Your task to perform on an android device: snooze an email in the gmail app Image 0: 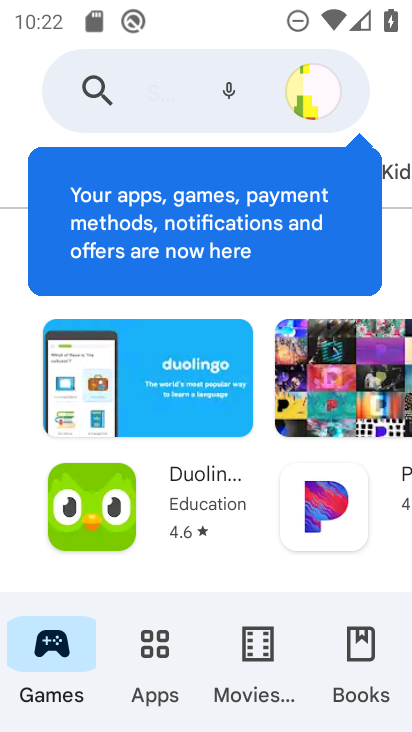
Step 0: press home button
Your task to perform on an android device: snooze an email in the gmail app Image 1: 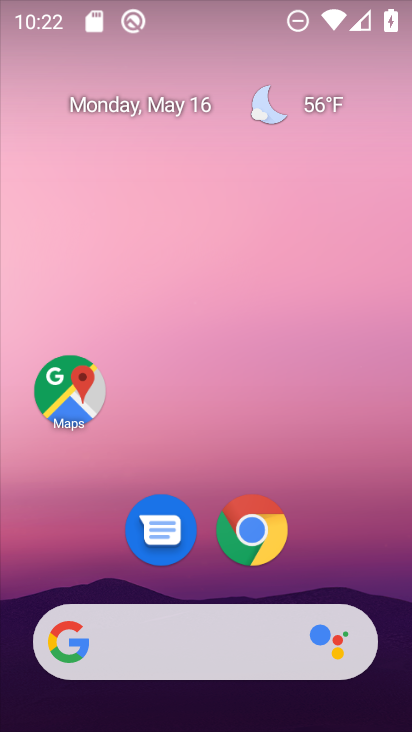
Step 1: drag from (366, 562) to (379, 219)
Your task to perform on an android device: snooze an email in the gmail app Image 2: 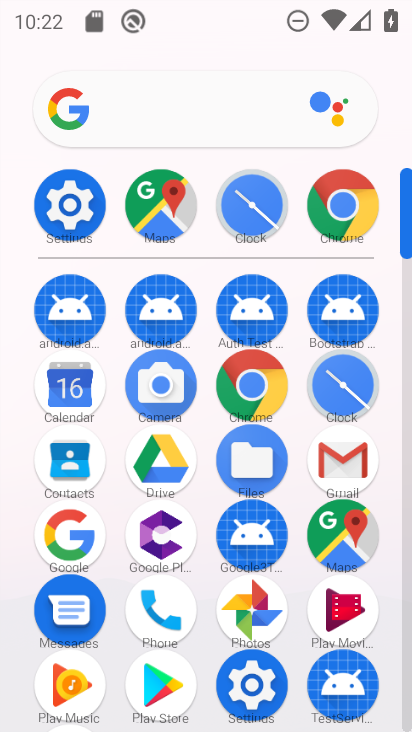
Step 2: click (340, 456)
Your task to perform on an android device: snooze an email in the gmail app Image 3: 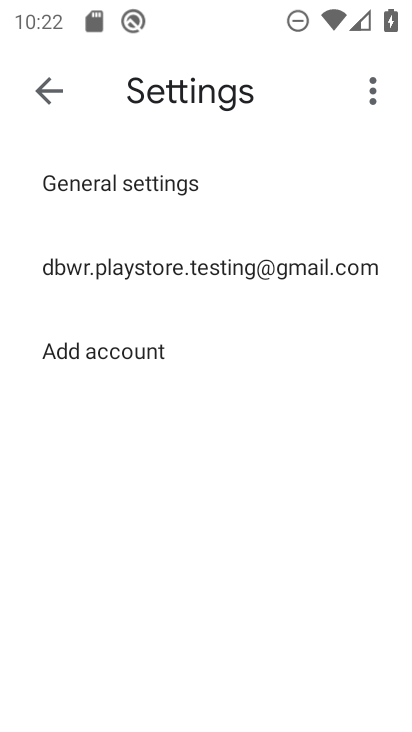
Step 3: click (46, 87)
Your task to perform on an android device: snooze an email in the gmail app Image 4: 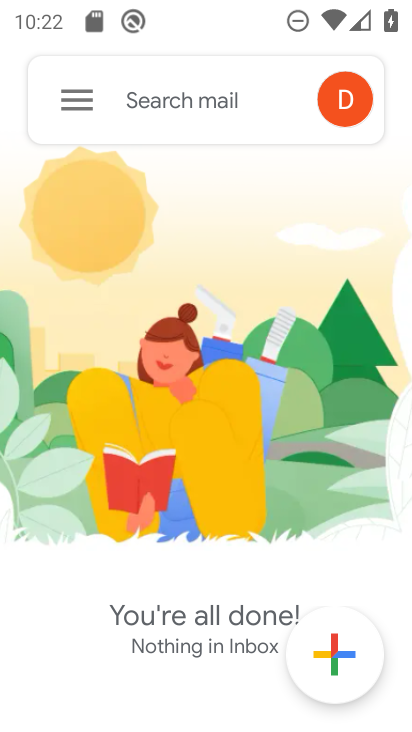
Step 4: click (87, 89)
Your task to perform on an android device: snooze an email in the gmail app Image 5: 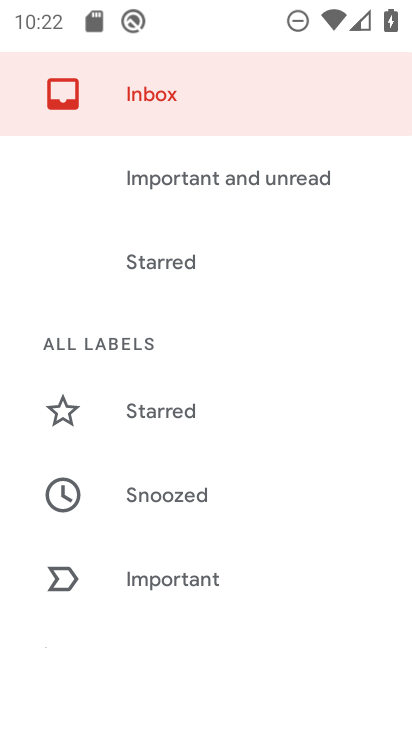
Step 5: drag from (293, 568) to (321, 402)
Your task to perform on an android device: snooze an email in the gmail app Image 6: 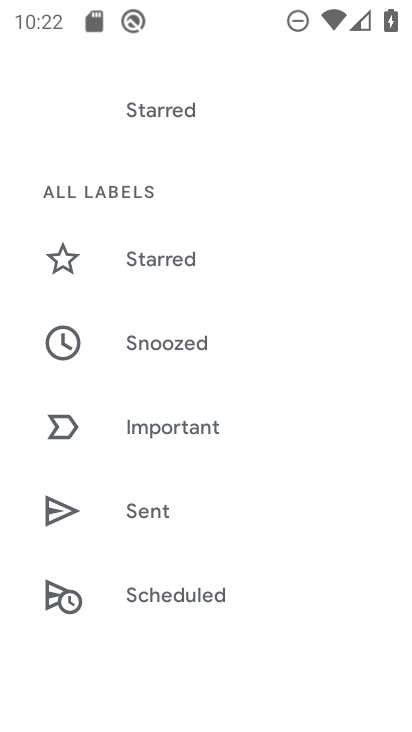
Step 6: drag from (320, 587) to (316, 431)
Your task to perform on an android device: snooze an email in the gmail app Image 7: 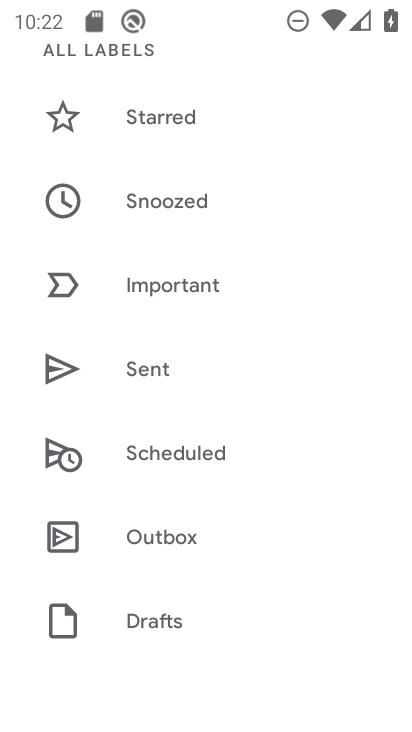
Step 7: click (308, 477)
Your task to perform on an android device: snooze an email in the gmail app Image 8: 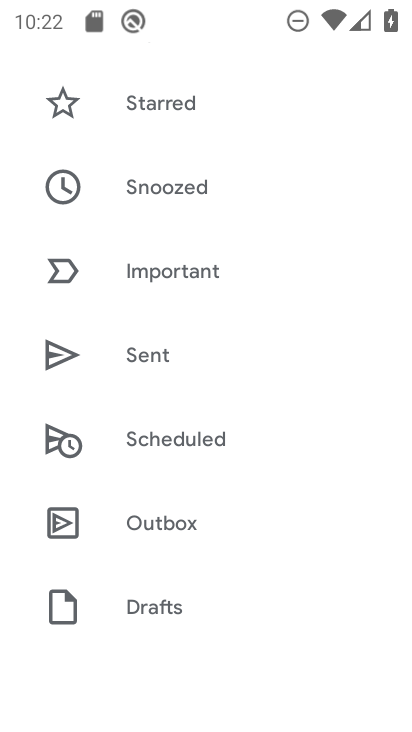
Step 8: drag from (324, 558) to (307, 390)
Your task to perform on an android device: snooze an email in the gmail app Image 9: 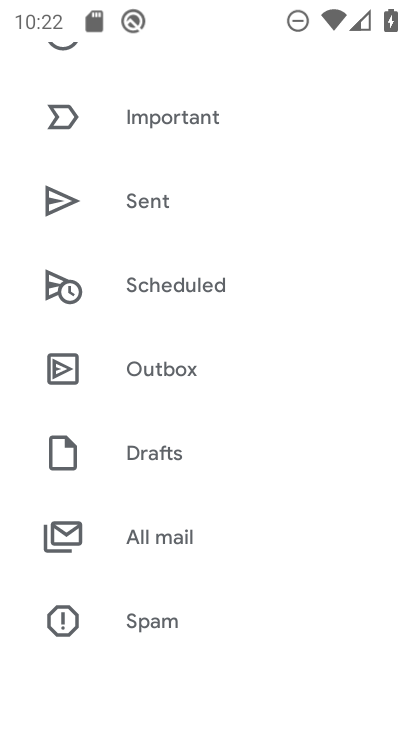
Step 9: drag from (320, 589) to (322, 434)
Your task to perform on an android device: snooze an email in the gmail app Image 10: 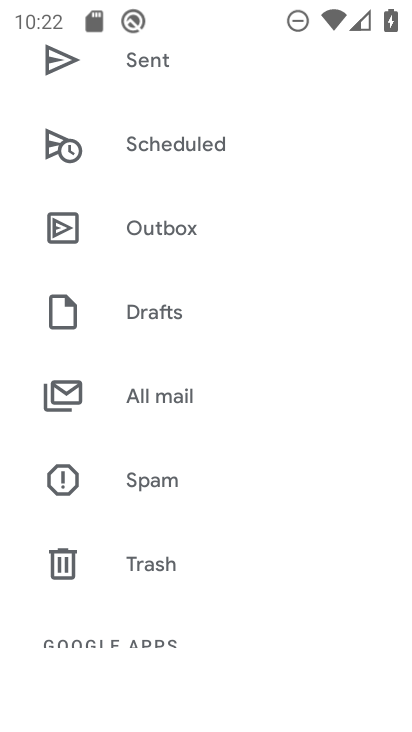
Step 10: drag from (322, 598) to (313, 436)
Your task to perform on an android device: snooze an email in the gmail app Image 11: 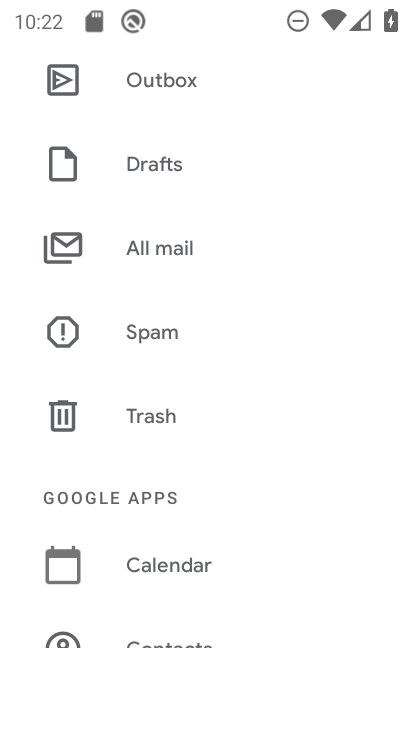
Step 11: drag from (315, 610) to (303, 437)
Your task to perform on an android device: snooze an email in the gmail app Image 12: 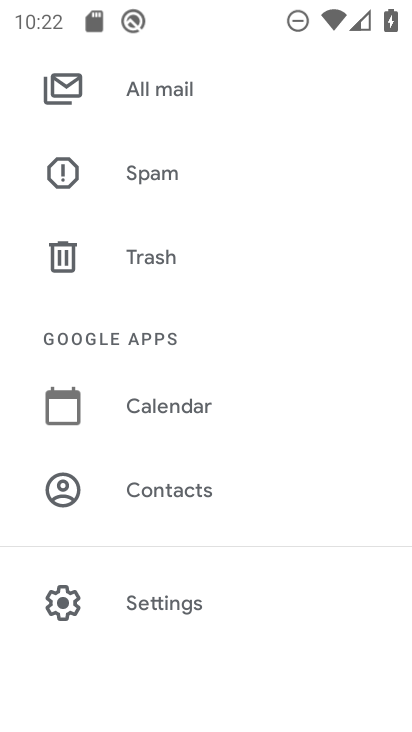
Step 12: drag from (319, 561) to (309, 448)
Your task to perform on an android device: snooze an email in the gmail app Image 13: 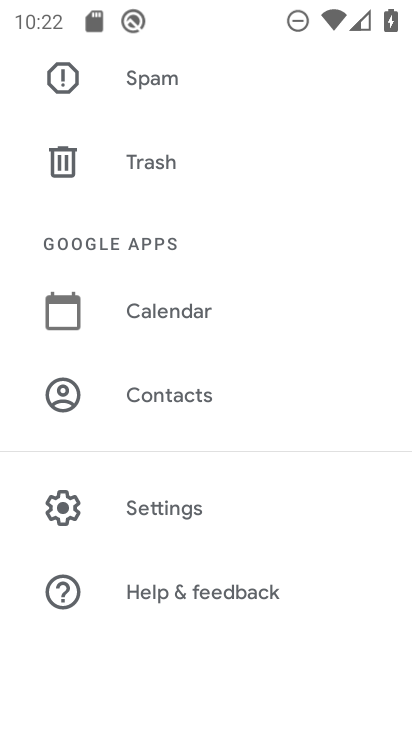
Step 13: drag from (300, 295) to (305, 550)
Your task to perform on an android device: snooze an email in the gmail app Image 14: 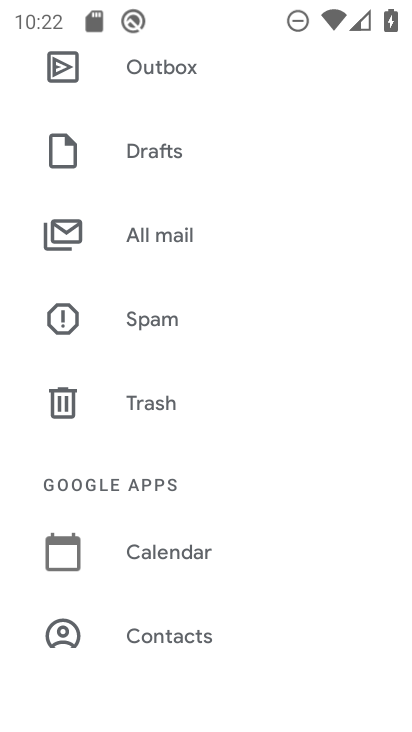
Step 14: drag from (316, 278) to (307, 480)
Your task to perform on an android device: snooze an email in the gmail app Image 15: 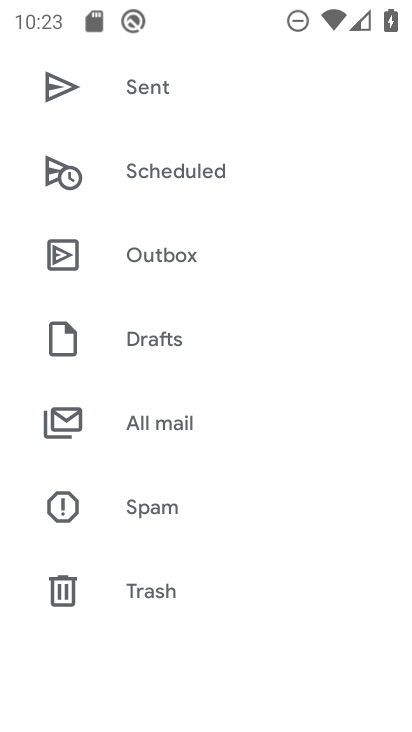
Step 15: drag from (296, 272) to (305, 397)
Your task to perform on an android device: snooze an email in the gmail app Image 16: 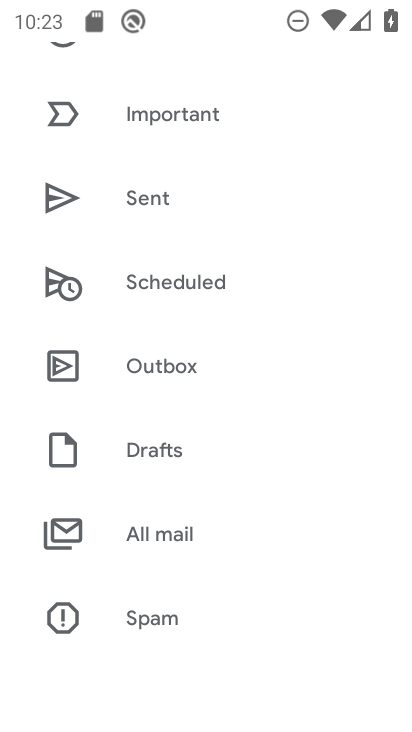
Step 16: drag from (314, 220) to (322, 400)
Your task to perform on an android device: snooze an email in the gmail app Image 17: 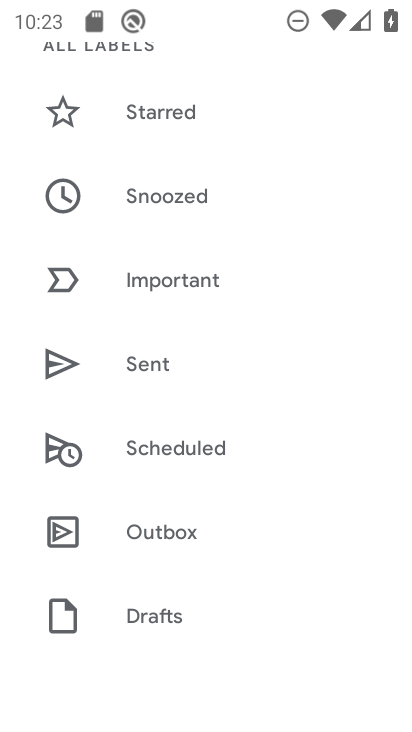
Step 17: drag from (288, 246) to (290, 460)
Your task to perform on an android device: snooze an email in the gmail app Image 18: 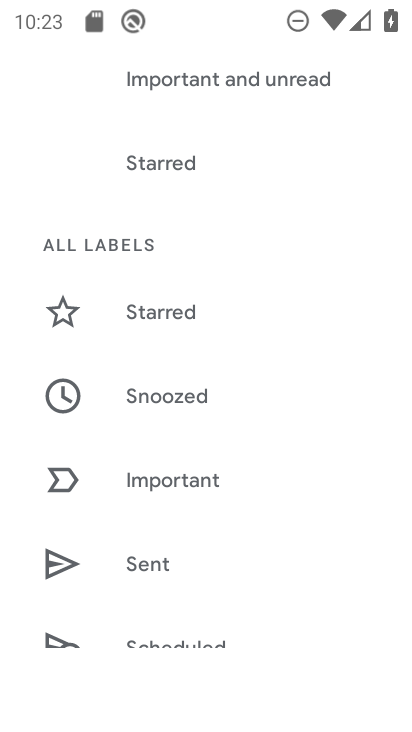
Step 18: click (194, 395)
Your task to perform on an android device: snooze an email in the gmail app Image 19: 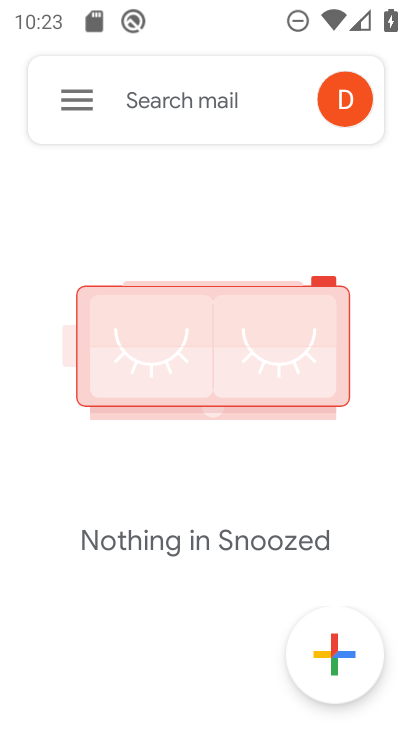
Step 19: task complete